Your task to perform on an android device: Go to display settings Image 0: 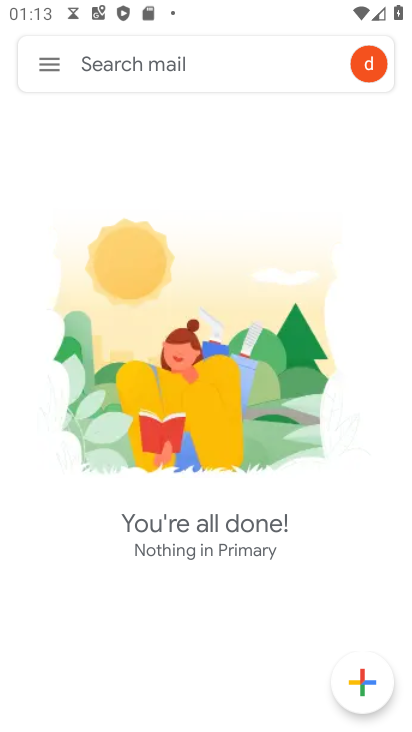
Step 0: press home button
Your task to perform on an android device: Go to display settings Image 1: 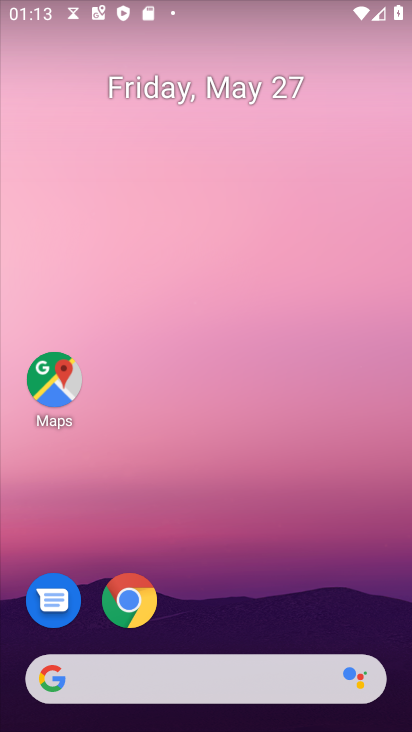
Step 1: drag from (222, 542) to (218, 155)
Your task to perform on an android device: Go to display settings Image 2: 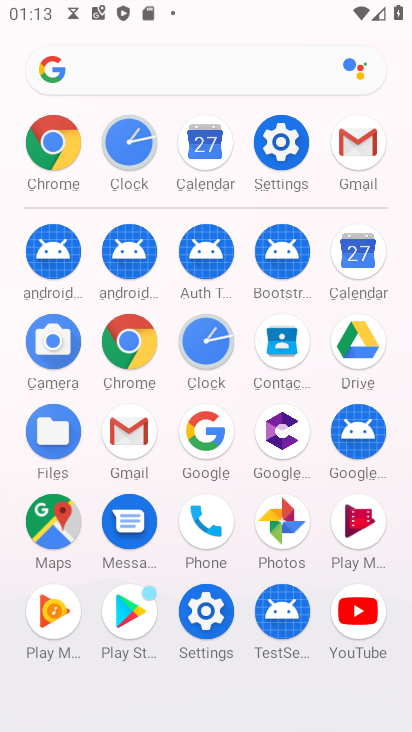
Step 2: click (281, 148)
Your task to perform on an android device: Go to display settings Image 3: 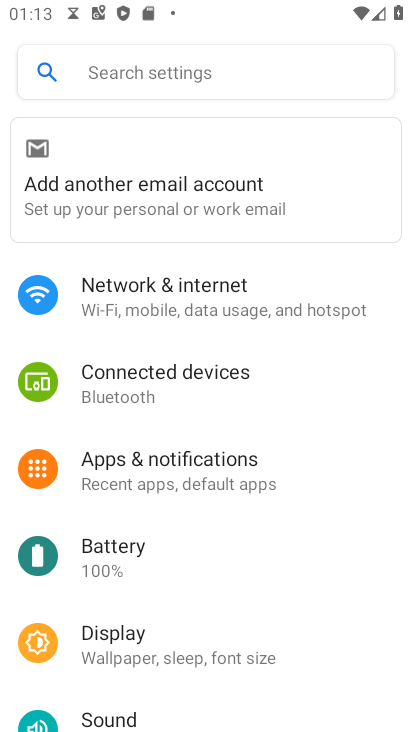
Step 3: click (194, 626)
Your task to perform on an android device: Go to display settings Image 4: 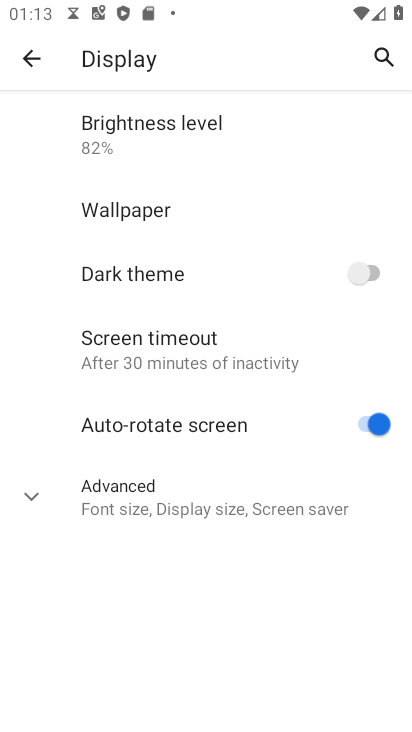
Step 4: task complete